Your task to perform on an android device: Go to eBay Image 0: 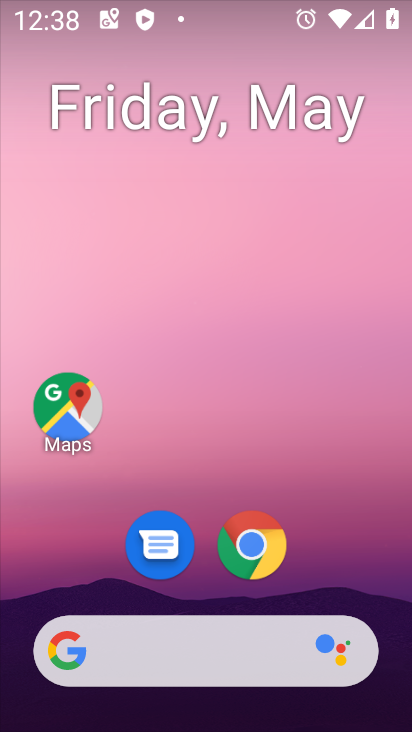
Step 0: click (259, 545)
Your task to perform on an android device: Go to eBay Image 1: 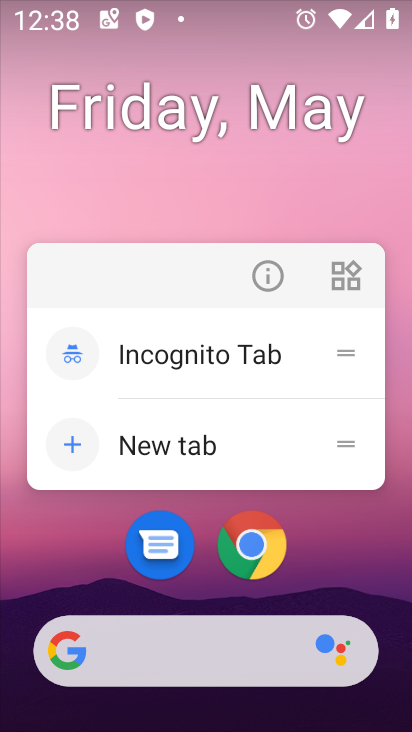
Step 1: click (256, 536)
Your task to perform on an android device: Go to eBay Image 2: 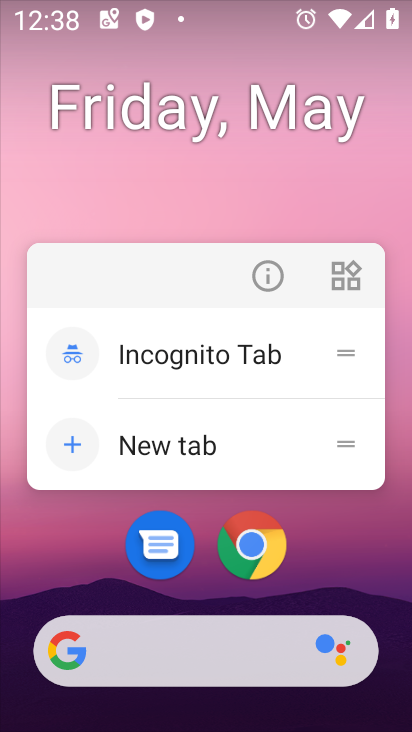
Step 2: click (243, 547)
Your task to perform on an android device: Go to eBay Image 3: 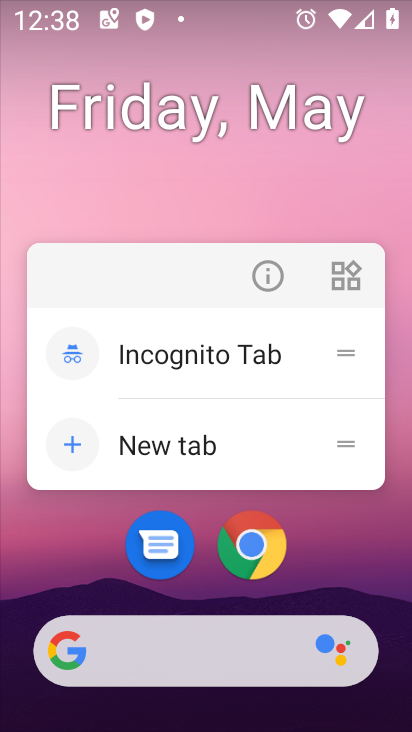
Step 3: click (265, 538)
Your task to perform on an android device: Go to eBay Image 4: 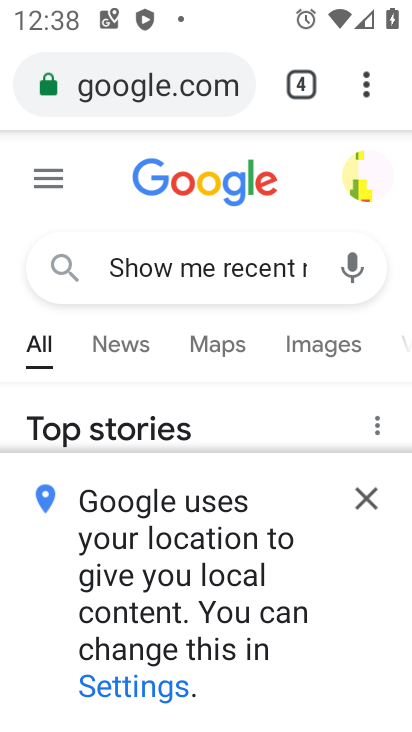
Step 4: click (375, 70)
Your task to perform on an android device: Go to eBay Image 5: 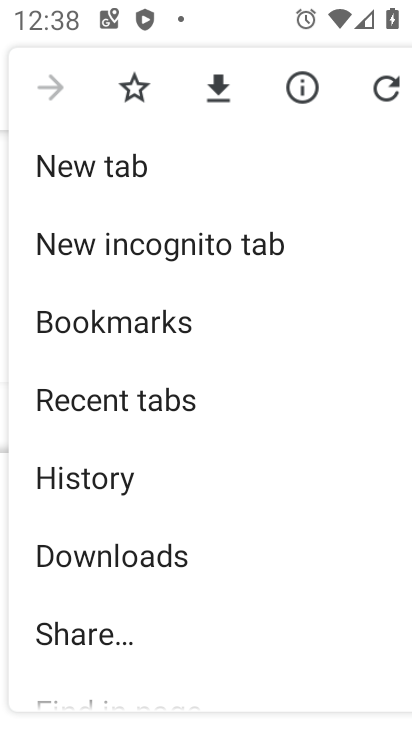
Step 5: click (86, 168)
Your task to perform on an android device: Go to eBay Image 6: 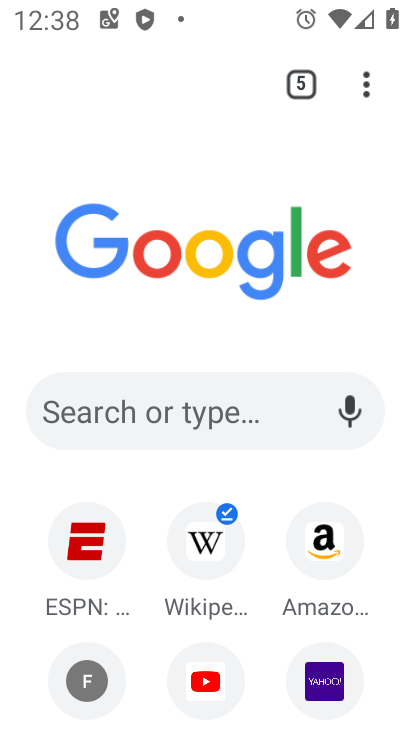
Step 6: click (142, 399)
Your task to perform on an android device: Go to eBay Image 7: 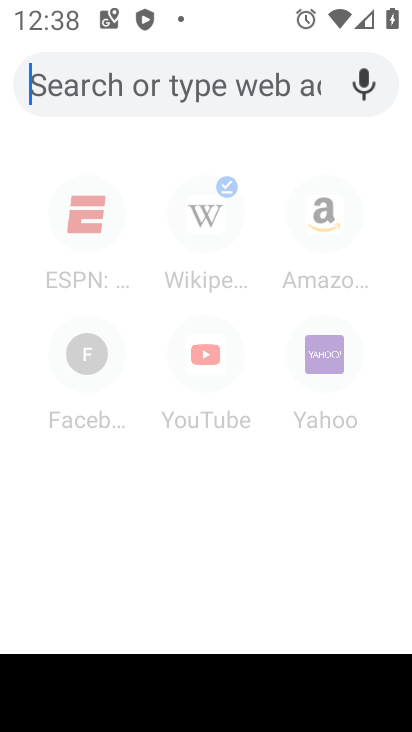
Step 7: type "eBay"
Your task to perform on an android device: Go to eBay Image 8: 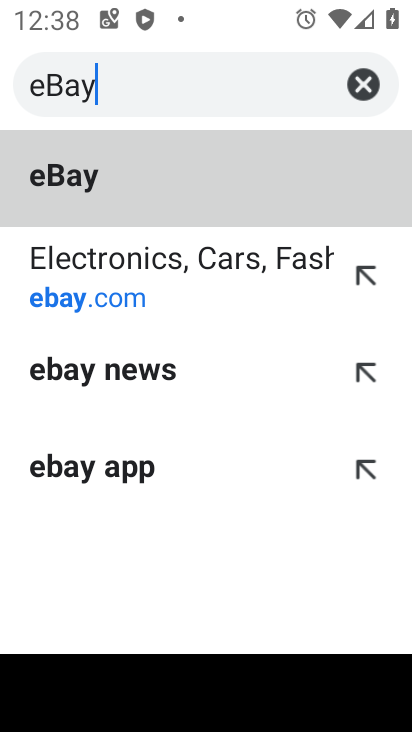
Step 8: click (146, 179)
Your task to perform on an android device: Go to eBay Image 9: 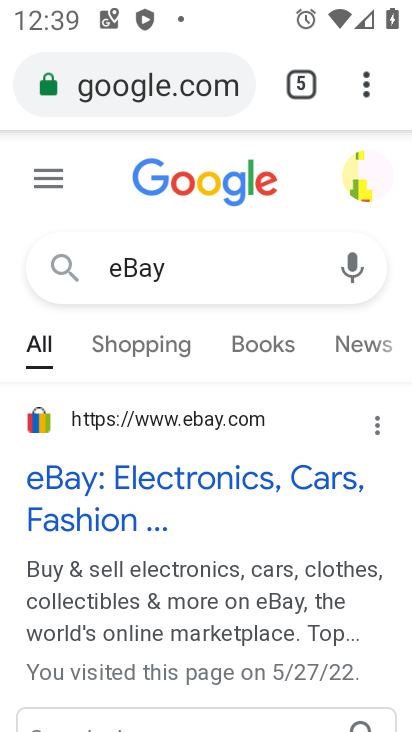
Step 9: task complete